Your task to perform on an android device: all mails in gmail Image 0: 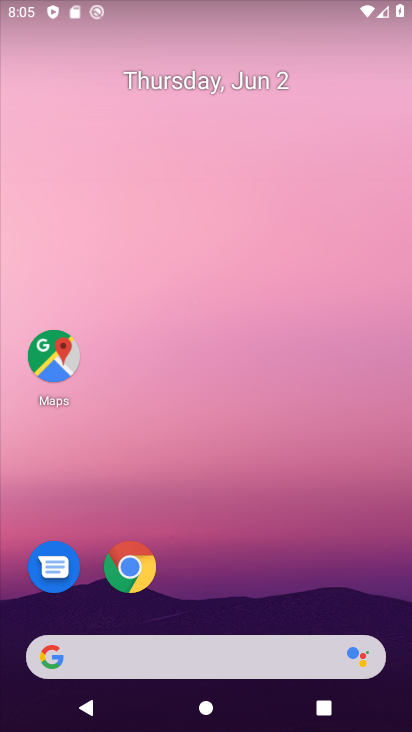
Step 0: drag from (259, 678) to (266, 219)
Your task to perform on an android device: all mails in gmail Image 1: 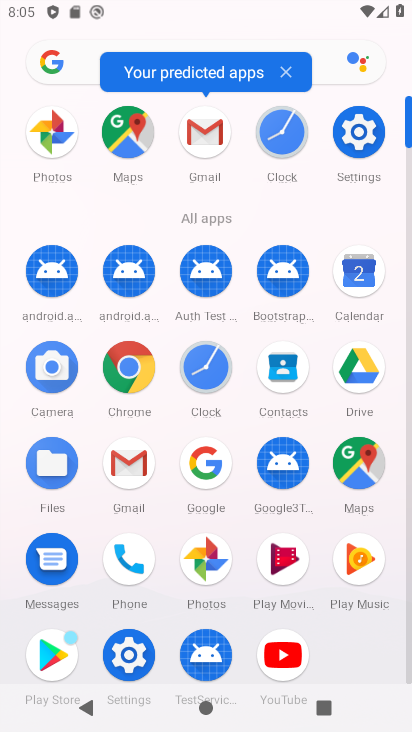
Step 1: click (207, 136)
Your task to perform on an android device: all mails in gmail Image 2: 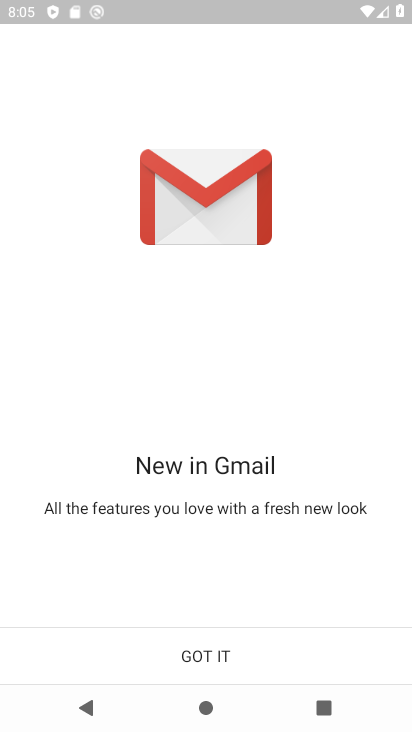
Step 2: click (207, 651)
Your task to perform on an android device: all mails in gmail Image 3: 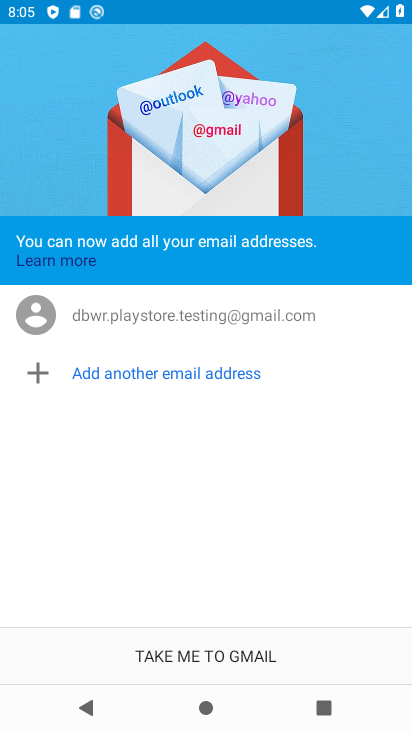
Step 3: click (207, 651)
Your task to perform on an android device: all mails in gmail Image 4: 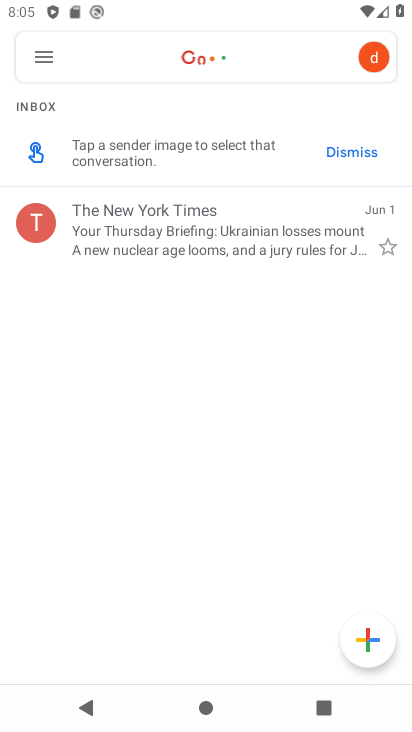
Step 4: click (44, 52)
Your task to perform on an android device: all mails in gmail Image 5: 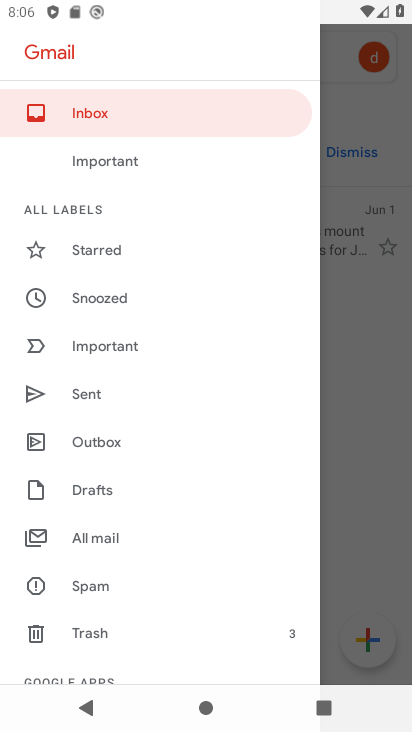
Step 5: click (95, 540)
Your task to perform on an android device: all mails in gmail Image 6: 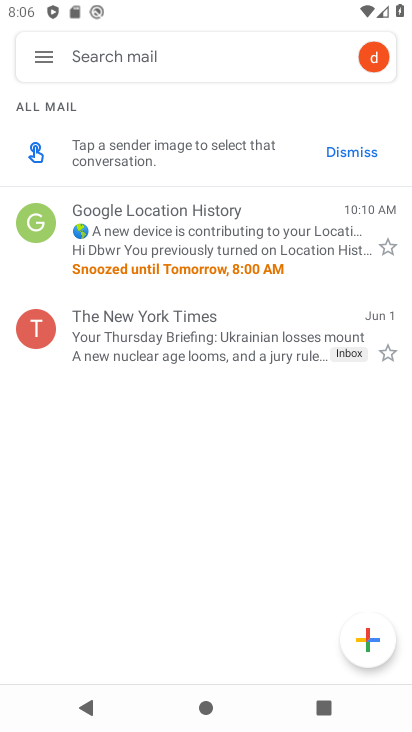
Step 6: task complete